Your task to perform on an android device: toggle show notifications on the lock screen Image 0: 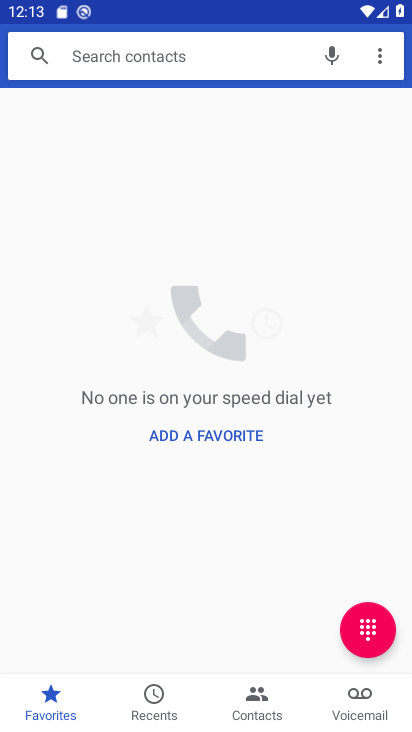
Step 0: drag from (238, 571) to (238, 327)
Your task to perform on an android device: toggle show notifications on the lock screen Image 1: 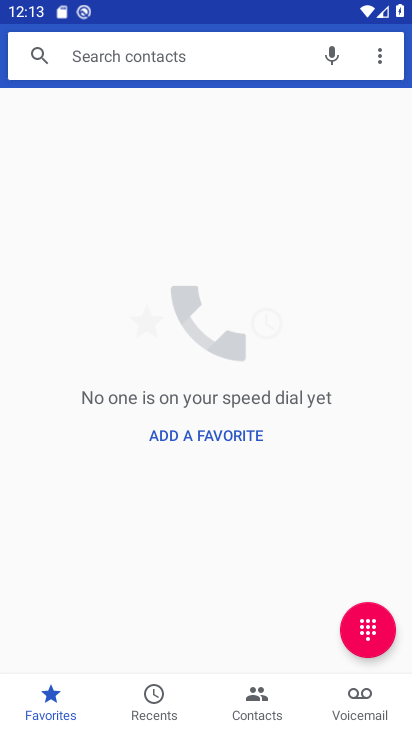
Step 1: press home button
Your task to perform on an android device: toggle show notifications on the lock screen Image 2: 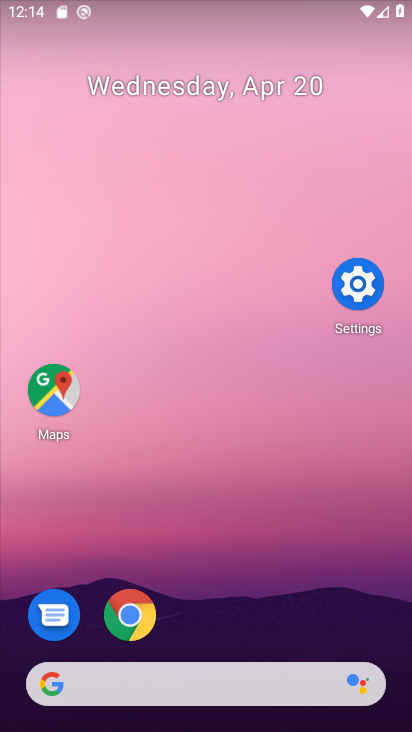
Step 2: drag from (185, 596) to (244, 199)
Your task to perform on an android device: toggle show notifications on the lock screen Image 3: 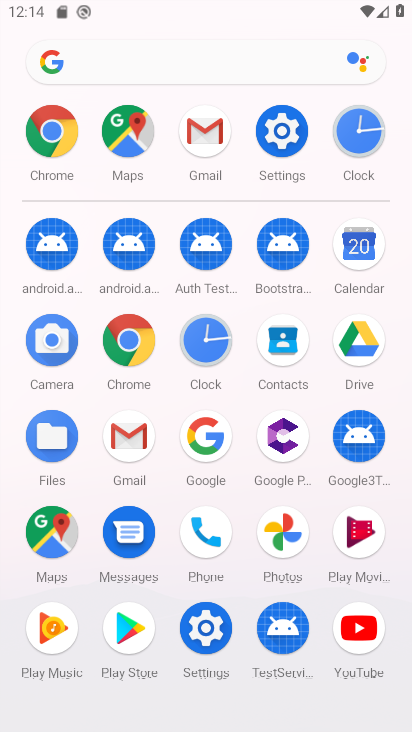
Step 3: click (207, 622)
Your task to perform on an android device: toggle show notifications on the lock screen Image 4: 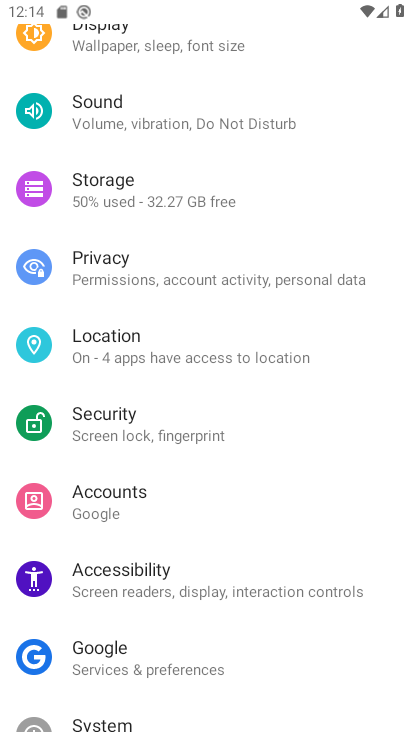
Step 4: drag from (159, 188) to (274, 555)
Your task to perform on an android device: toggle show notifications on the lock screen Image 5: 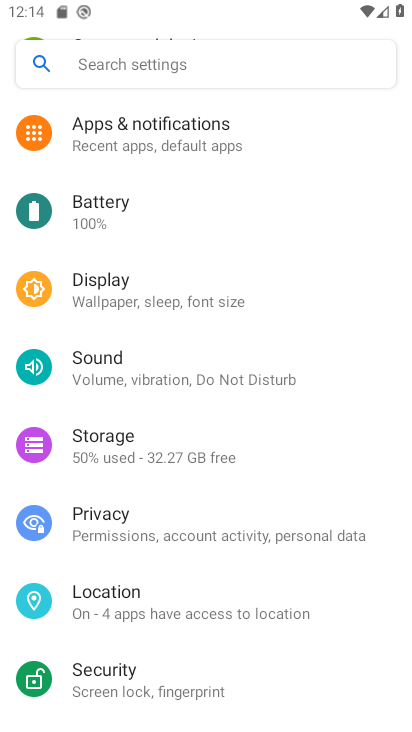
Step 5: click (211, 137)
Your task to perform on an android device: toggle show notifications on the lock screen Image 6: 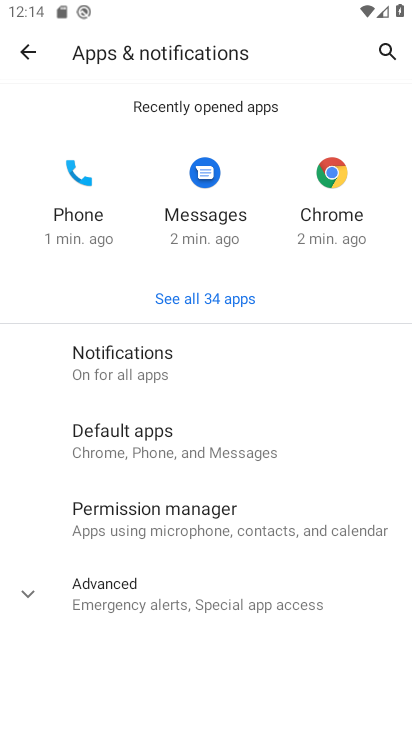
Step 6: click (177, 380)
Your task to perform on an android device: toggle show notifications on the lock screen Image 7: 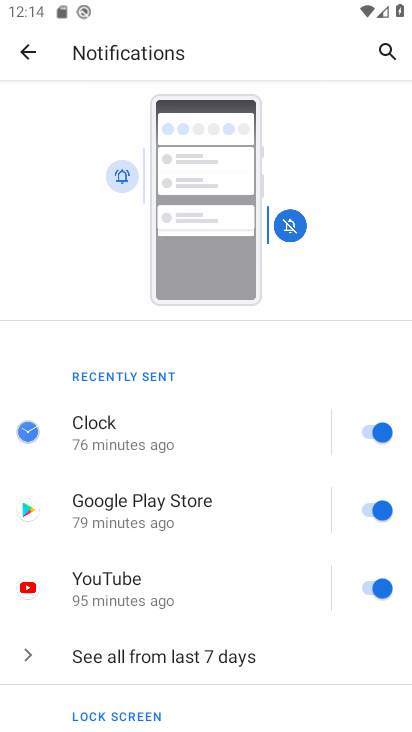
Step 7: drag from (218, 610) to (209, 218)
Your task to perform on an android device: toggle show notifications on the lock screen Image 8: 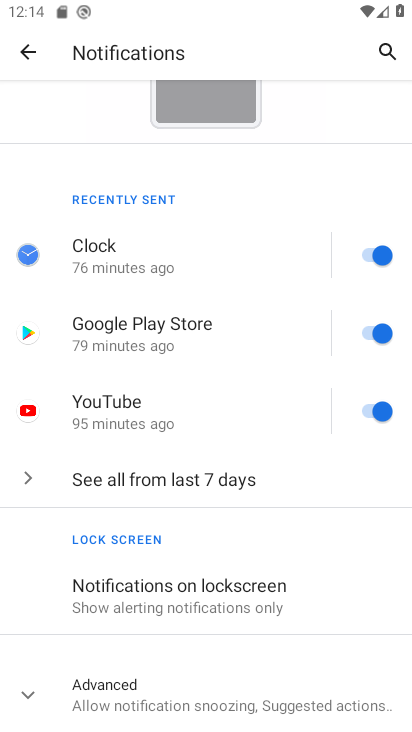
Step 8: click (227, 596)
Your task to perform on an android device: toggle show notifications on the lock screen Image 9: 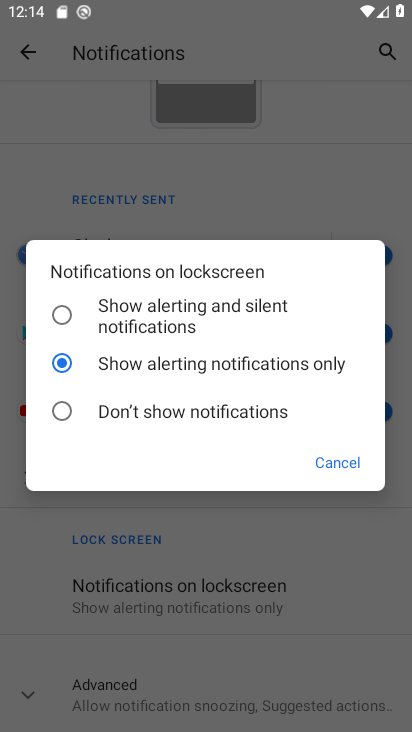
Step 9: task complete